Your task to perform on an android device: Open Reddit.com Image 0: 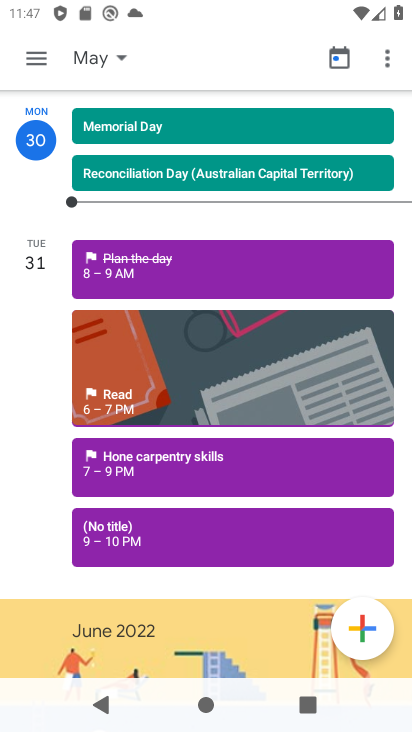
Step 0: press back button
Your task to perform on an android device: Open Reddit.com Image 1: 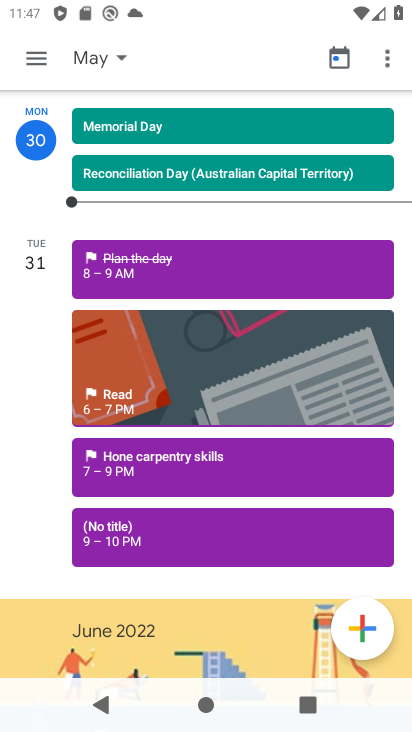
Step 1: press back button
Your task to perform on an android device: Open Reddit.com Image 2: 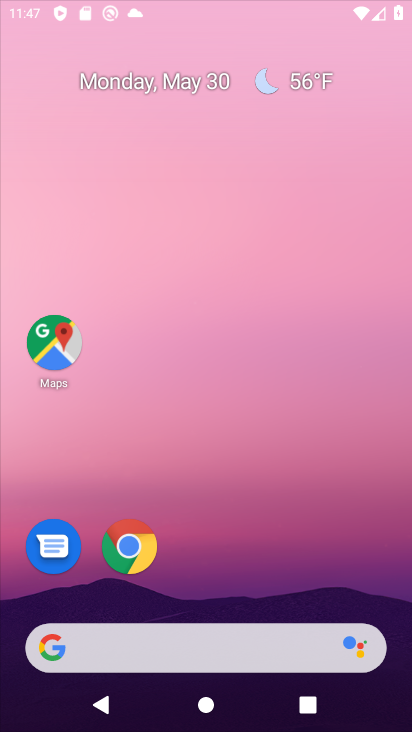
Step 2: press back button
Your task to perform on an android device: Open Reddit.com Image 3: 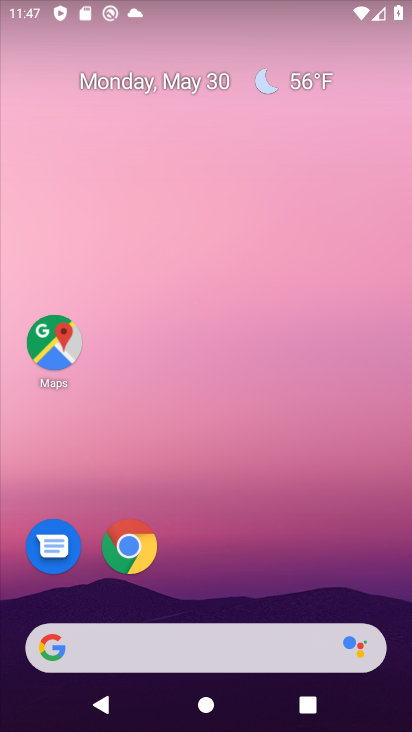
Step 3: drag from (217, 536) to (125, 314)
Your task to perform on an android device: Open Reddit.com Image 4: 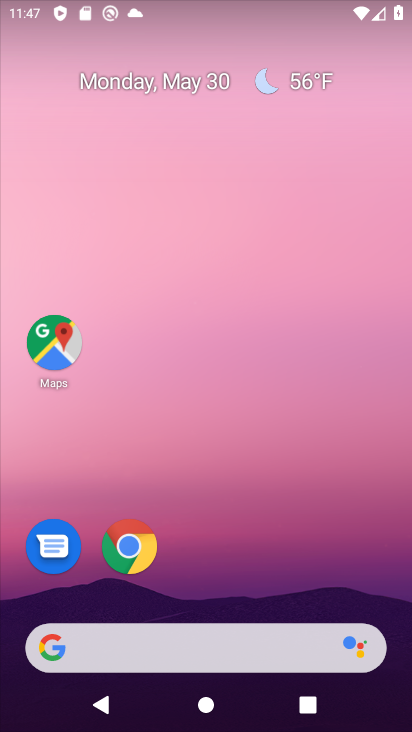
Step 4: drag from (252, 683) to (200, 190)
Your task to perform on an android device: Open Reddit.com Image 5: 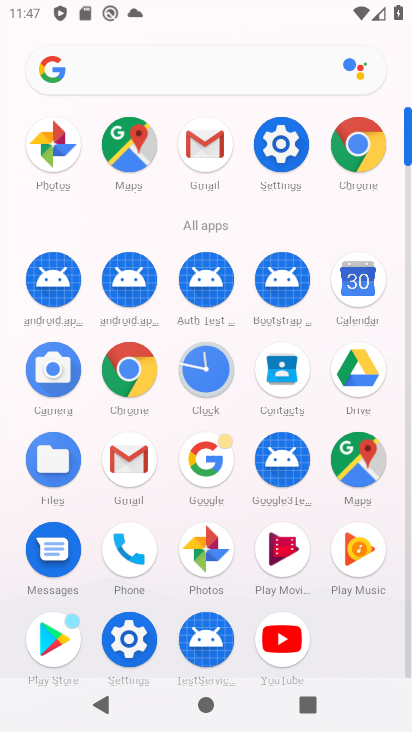
Step 5: click (347, 145)
Your task to perform on an android device: Open Reddit.com Image 6: 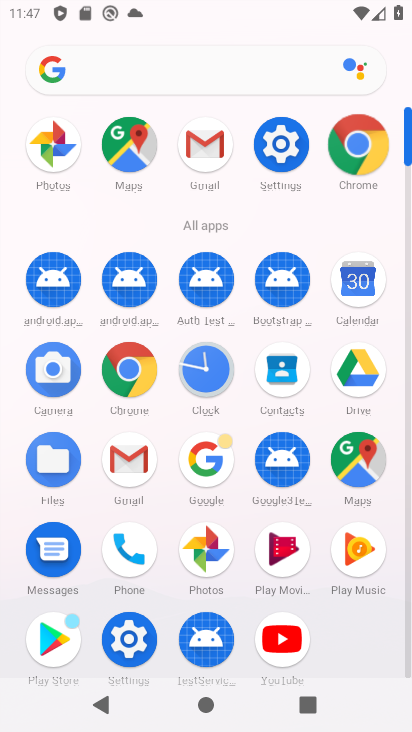
Step 6: click (347, 145)
Your task to perform on an android device: Open Reddit.com Image 7: 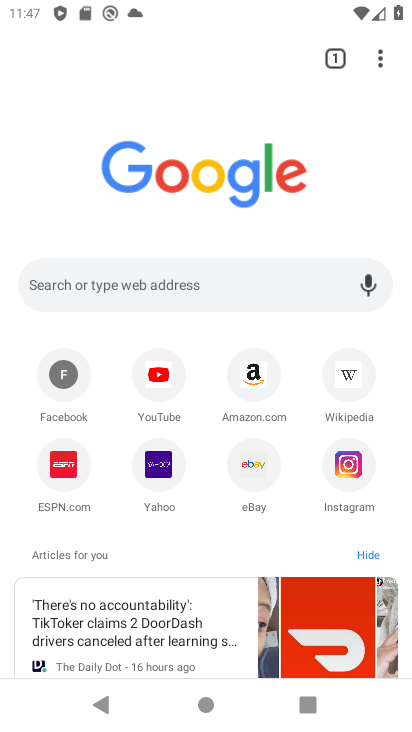
Step 7: click (78, 284)
Your task to perform on an android device: Open Reddit.com Image 8: 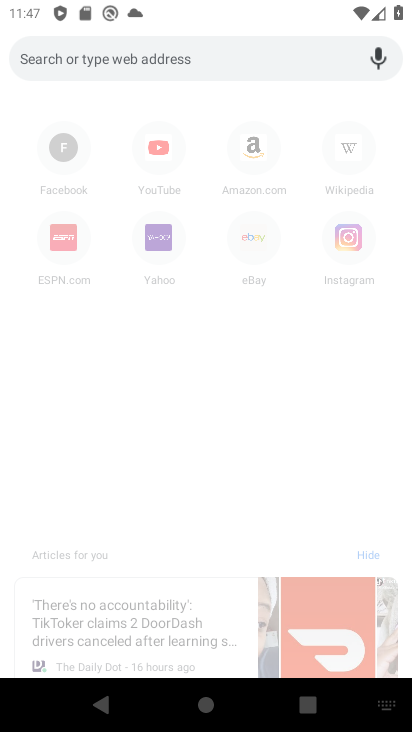
Step 8: type "reddit.com"
Your task to perform on an android device: Open Reddit.com Image 9: 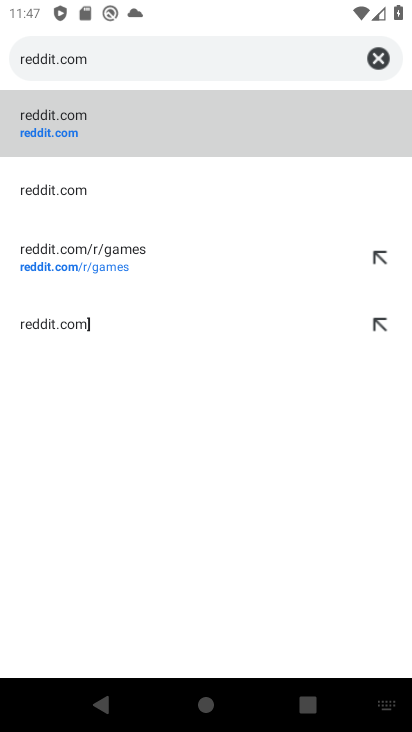
Step 9: click (54, 125)
Your task to perform on an android device: Open Reddit.com Image 10: 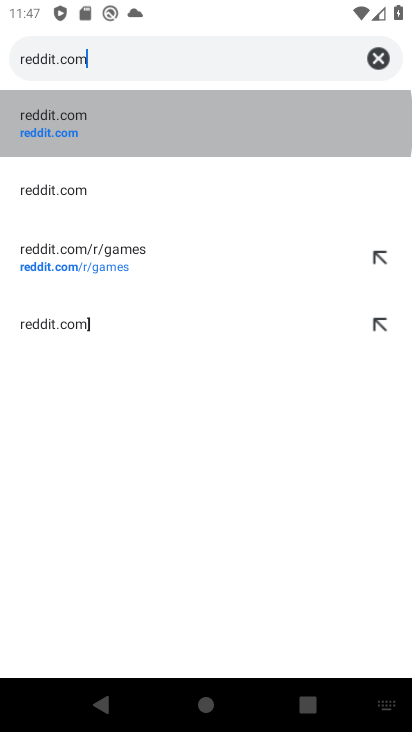
Step 10: click (59, 128)
Your task to perform on an android device: Open Reddit.com Image 11: 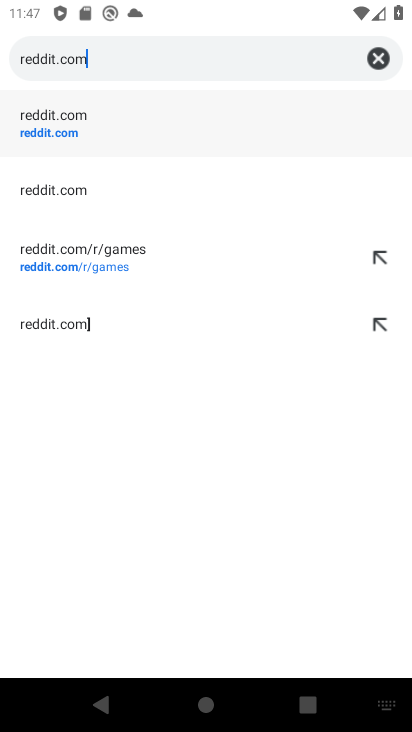
Step 11: click (62, 129)
Your task to perform on an android device: Open Reddit.com Image 12: 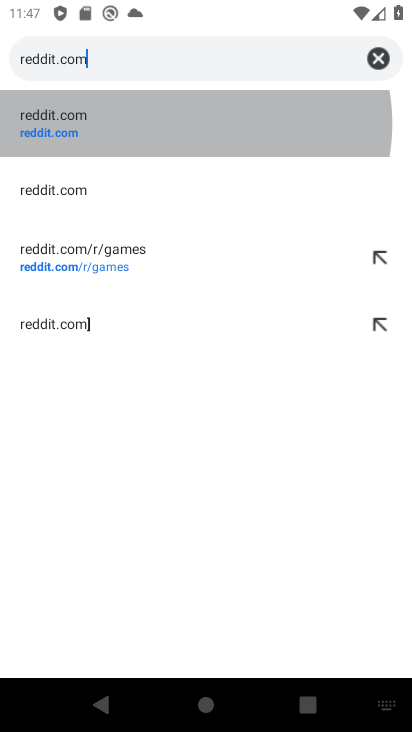
Step 12: click (62, 129)
Your task to perform on an android device: Open Reddit.com Image 13: 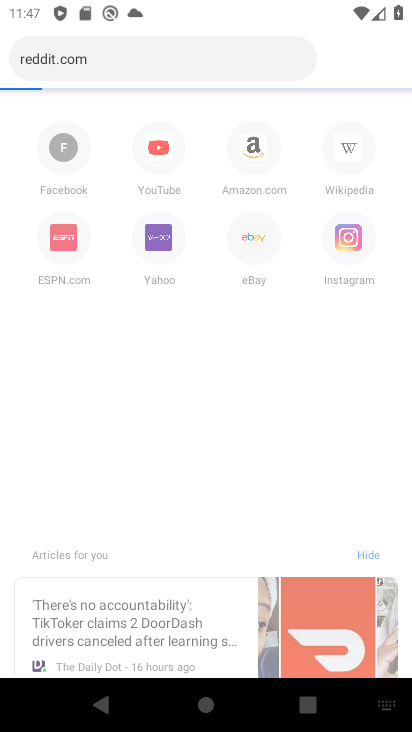
Step 13: click (69, 126)
Your task to perform on an android device: Open Reddit.com Image 14: 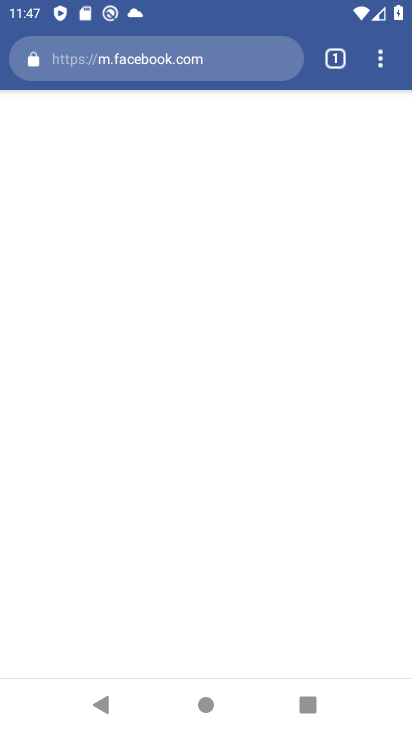
Step 14: task complete